Your task to perform on an android device: open wifi settings Image 0: 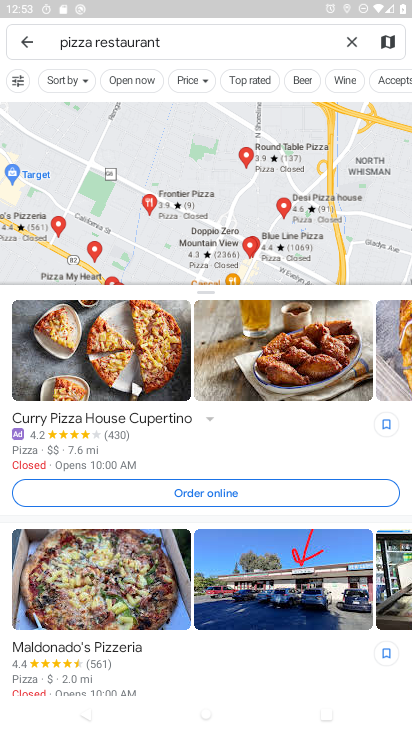
Step 0: press home button
Your task to perform on an android device: open wifi settings Image 1: 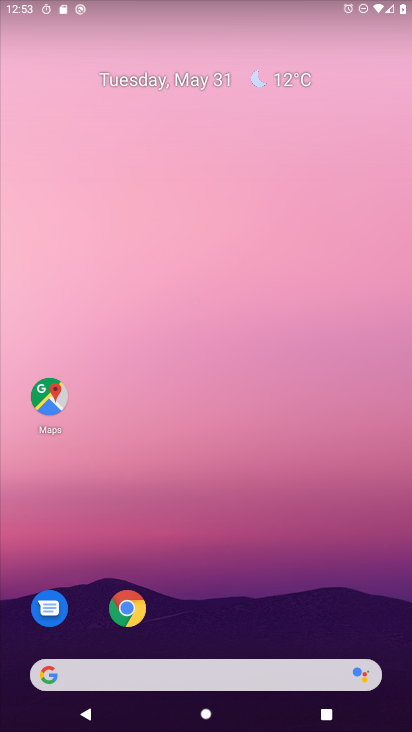
Step 1: drag from (245, 640) to (233, 3)
Your task to perform on an android device: open wifi settings Image 2: 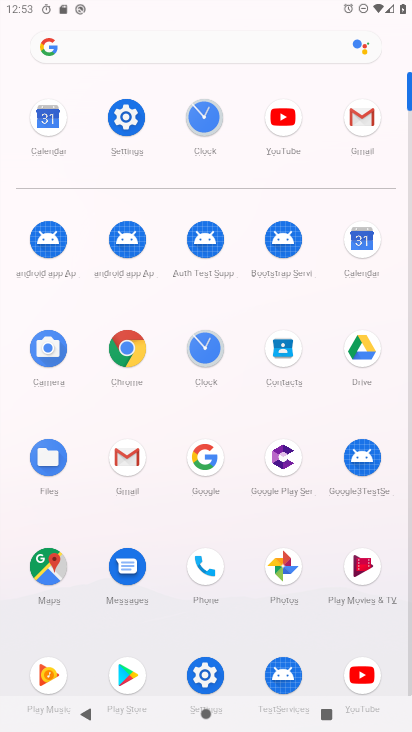
Step 2: click (130, 117)
Your task to perform on an android device: open wifi settings Image 3: 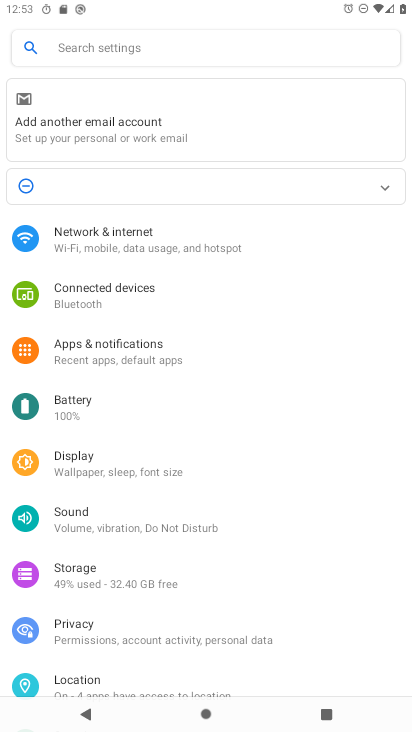
Step 3: click (87, 252)
Your task to perform on an android device: open wifi settings Image 4: 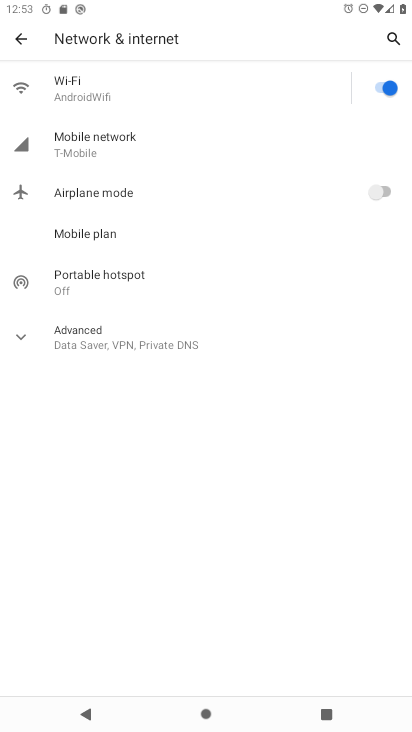
Step 4: click (35, 89)
Your task to perform on an android device: open wifi settings Image 5: 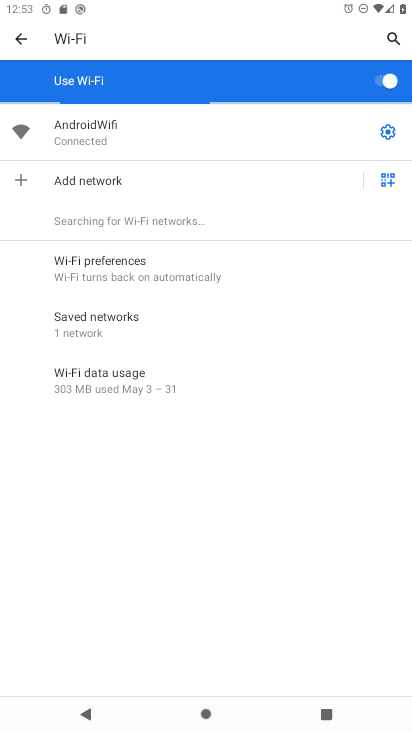
Step 5: task complete